Your task to perform on an android device: Open Google Chrome Image 0: 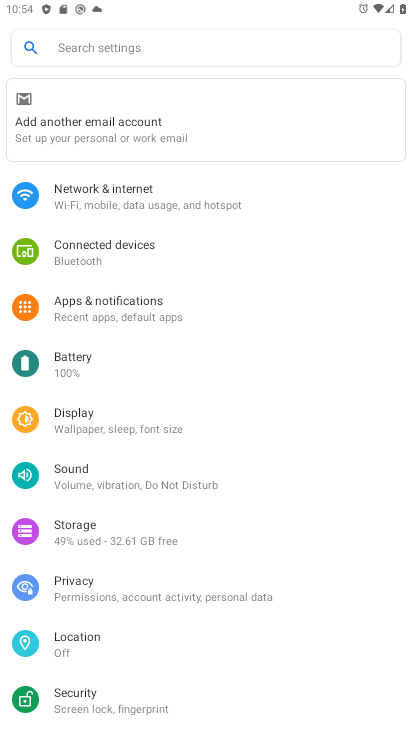
Step 0: press home button
Your task to perform on an android device: Open Google Chrome Image 1: 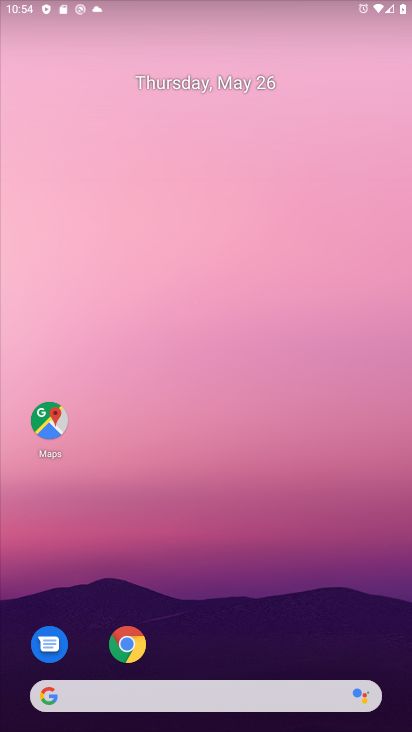
Step 1: drag from (202, 623) to (200, 192)
Your task to perform on an android device: Open Google Chrome Image 2: 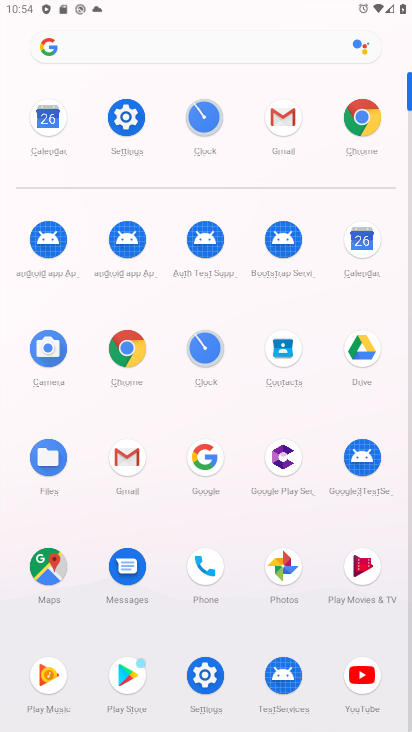
Step 2: click (361, 136)
Your task to perform on an android device: Open Google Chrome Image 3: 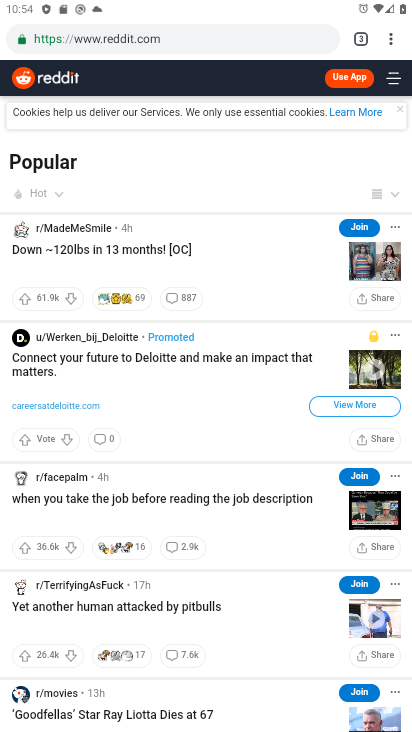
Step 3: task complete